Your task to perform on an android device: turn on notifications settings in the gmail app Image 0: 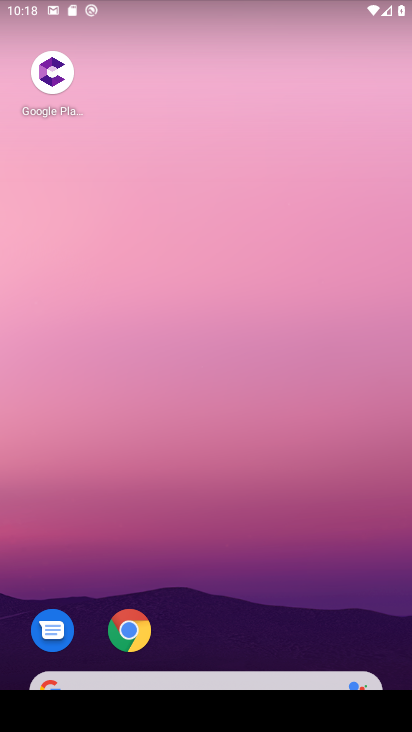
Step 0: drag from (220, 634) to (228, 23)
Your task to perform on an android device: turn on notifications settings in the gmail app Image 1: 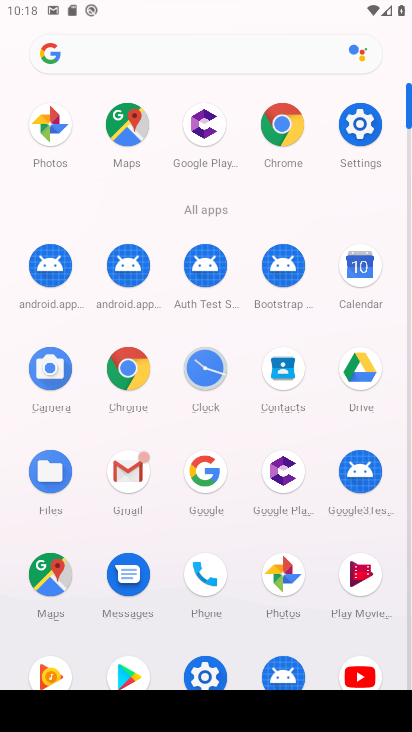
Step 1: drag from (342, 562) to (301, 71)
Your task to perform on an android device: turn on notifications settings in the gmail app Image 2: 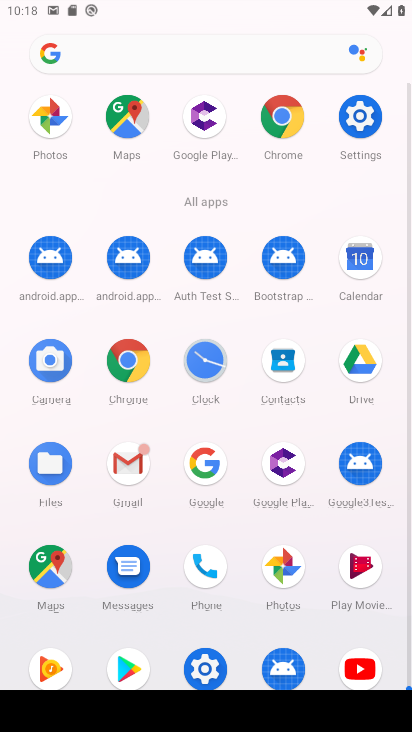
Step 2: drag from (159, 516) to (161, 238)
Your task to perform on an android device: turn on notifications settings in the gmail app Image 3: 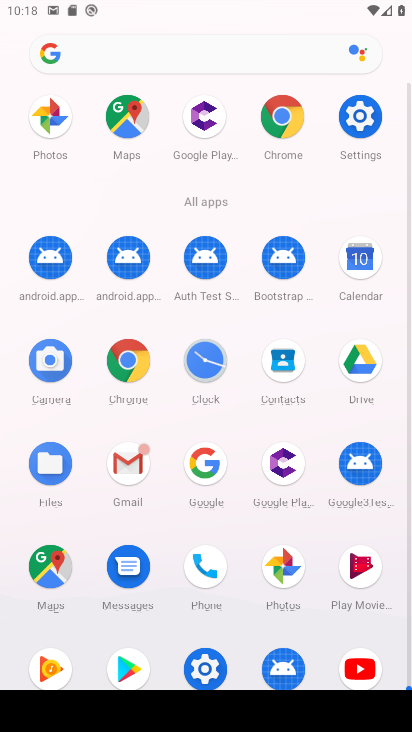
Step 3: click (129, 474)
Your task to perform on an android device: turn on notifications settings in the gmail app Image 4: 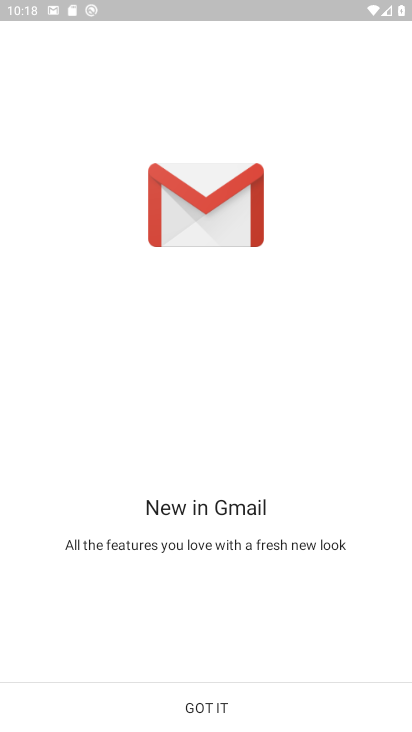
Step 4: click (206, 707)
Your task to perform on an android device: turn on notifications settings in the gmail app Image 5: 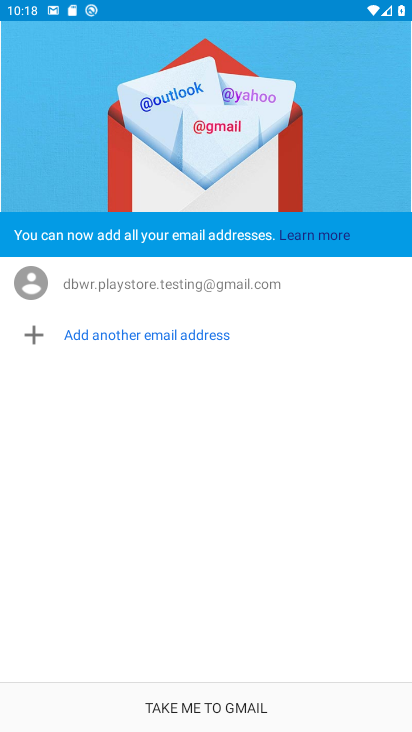
Step 5: click (209, 699)
Your task to perform on an android device: turn on notifications settings in the gmail app Image 6: 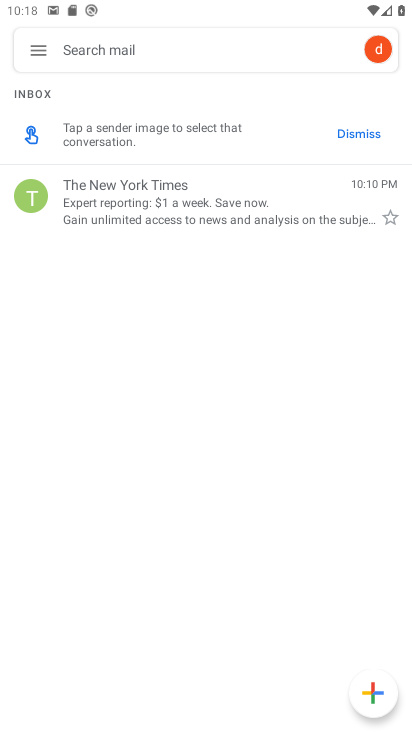
Step 6: click (39, 45)
Your task to perform on an android device: turn on notifications settings in the gmail app Image 7: 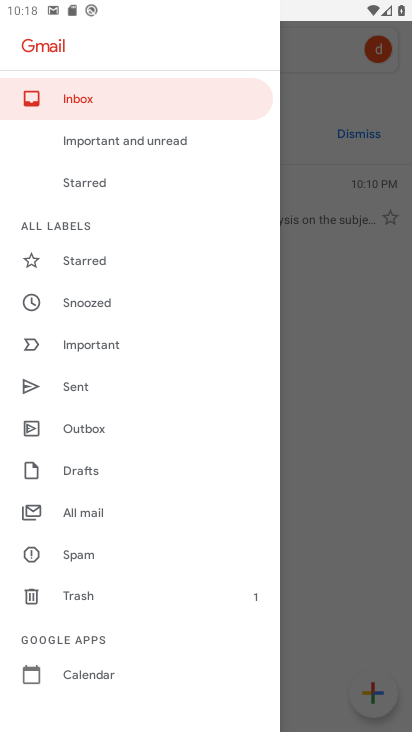
Step 7: drag from (107, 593) to (156, 248)
Your task to perform on an android device: turn on notifications settings in the gmail app Image 8: 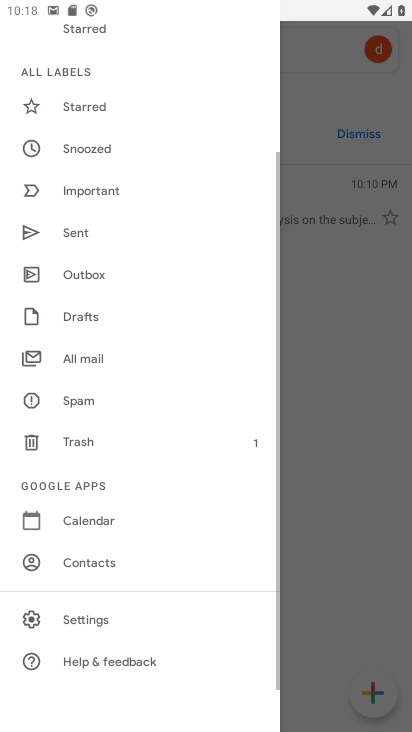
Step 8: click (110, 615)
Your task to perform on an android device: turn on notifications settings in the gmail app Image 9: 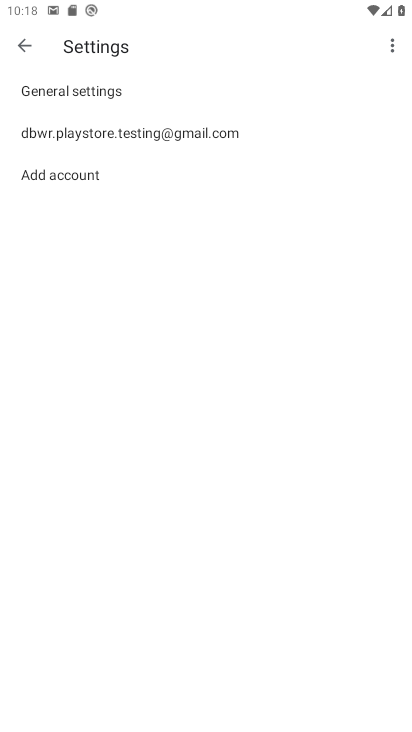
Step 9: click (155, 128)
Your task to perform on an android device: turn on notifications settings in the gmail app Image 10: 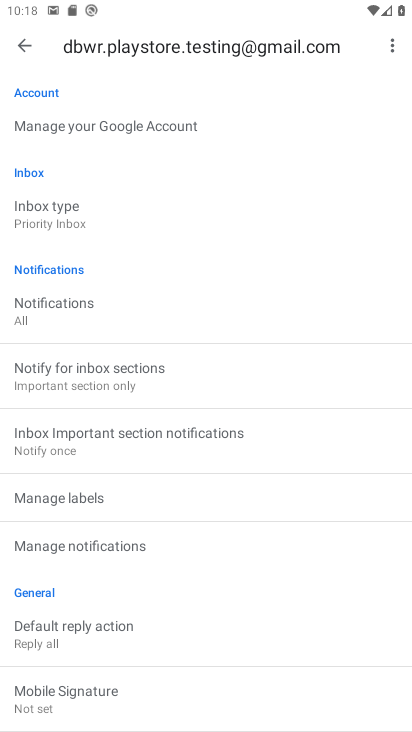
Step 10: click (134, 538)
Your task to perform on an android device: turn on notifications settings in the gmail app Image 11: 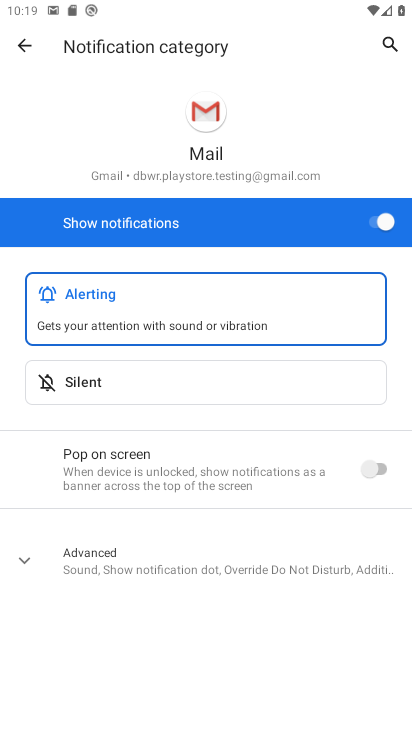
Step 11: task complete